Your task to perform on an android device: star an email in the gmail app Image 0: 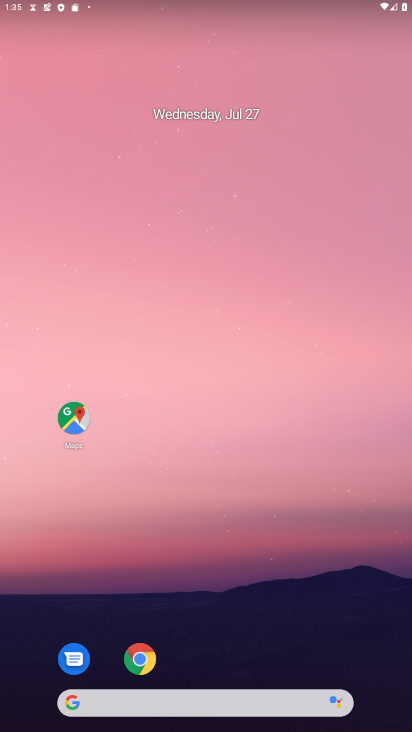
Step 0: press home button
Your task to perform on an android device: star an email in the gmail app Image 1: 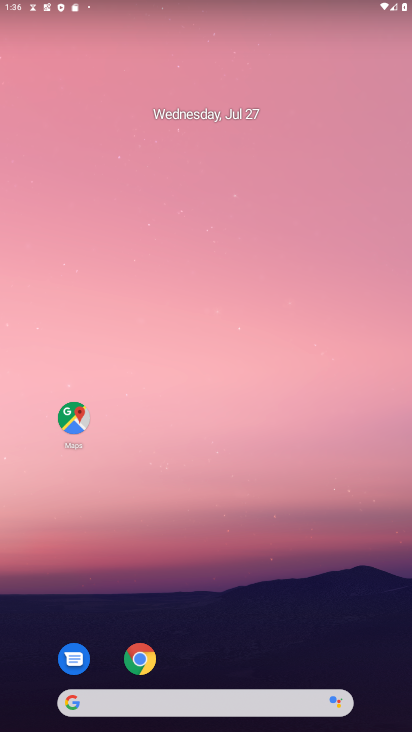
Step 1: drag from (227, 667) to (215, 111)
Your task to perform on an android device: star an email in the gmail app Image 2: 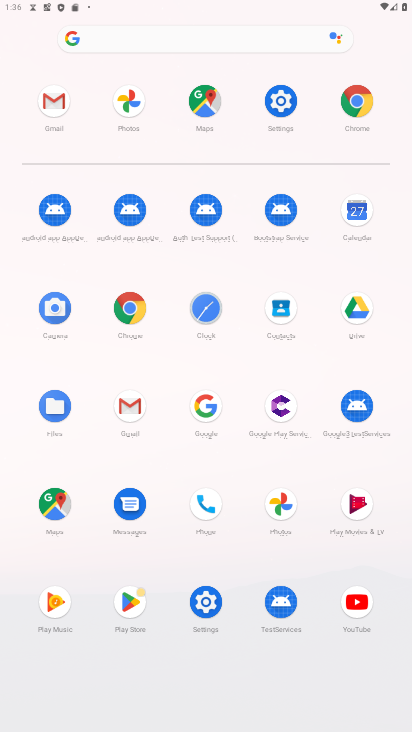
Step 2: click (130, 402)
Your task to perform on an android device: star an email in the gmail app Image 3: 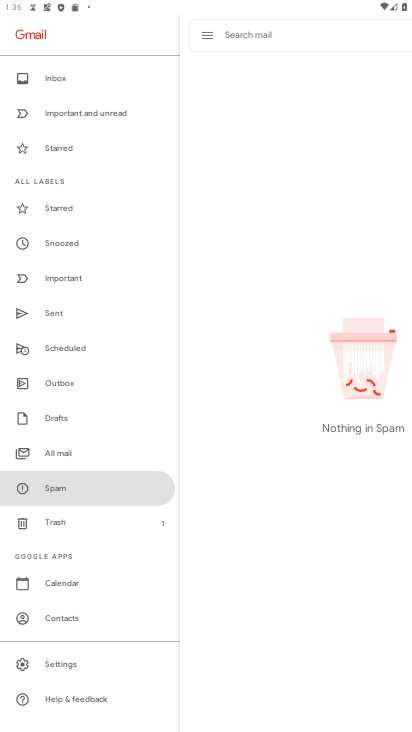
Step 3: click (54, 451)
Your task to perform on an android device: star an email in the gmail app Image 4: 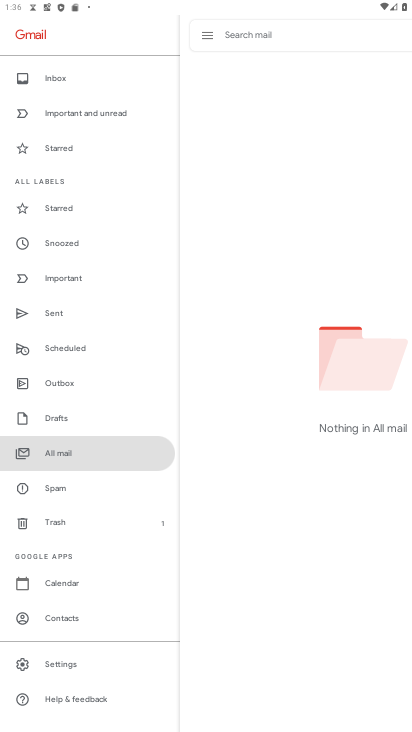
Step 4: task complete